Your task to perform on an android device: Go to internet settings Image 0: 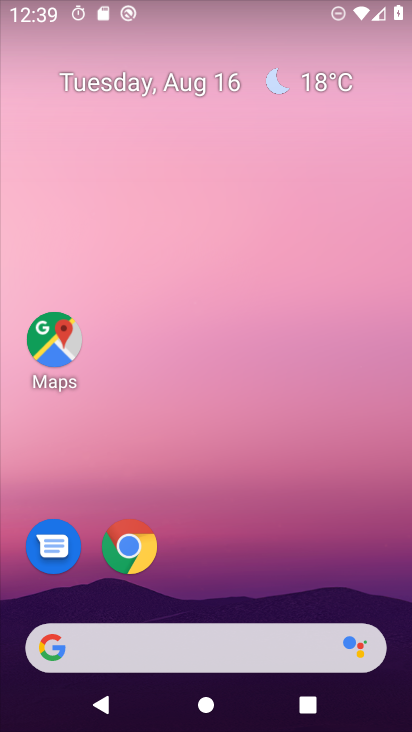
Step 0: drag from (224, 536) to (212, 126)
Your task to perform on an android device: Go to internet settings Image 1: 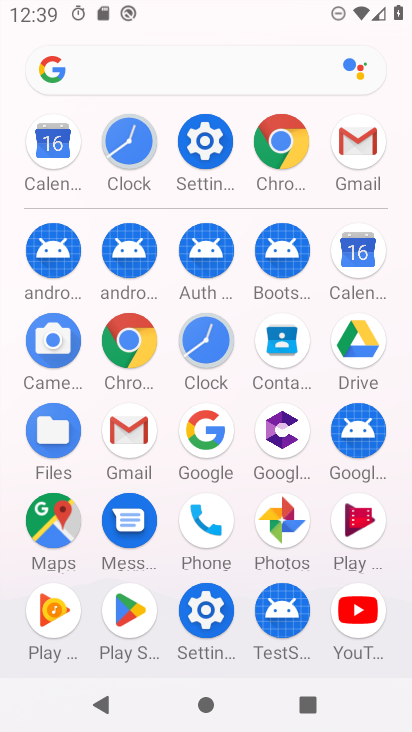
Step 1: click (202, 135)
Your task to perform on an android device: Go to internet settings Image 2: 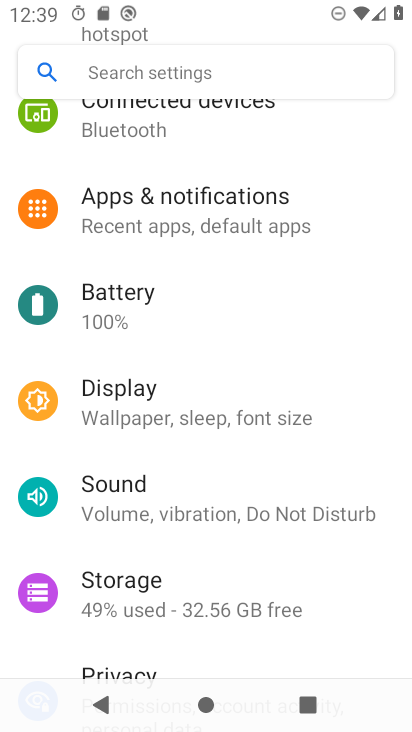
Step 2: drag from (177, 252) to (188, 580)
Your task to perform on an android device: Go to internet settings Image 3: 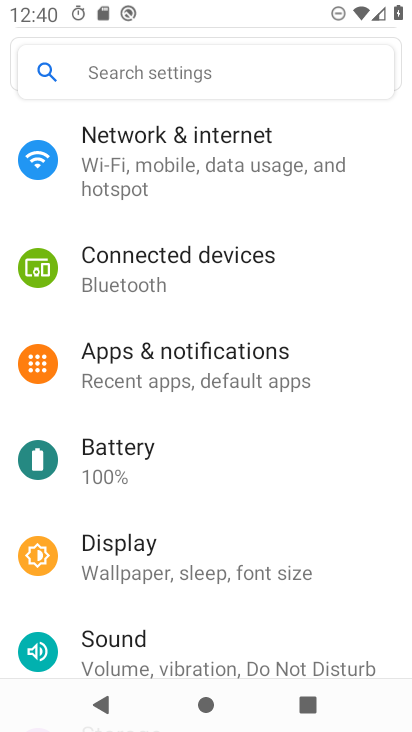
Step 3: drag from (184, 173) to (199, 622)
Your task to perform on an android device: Go to internet settings Image 4: 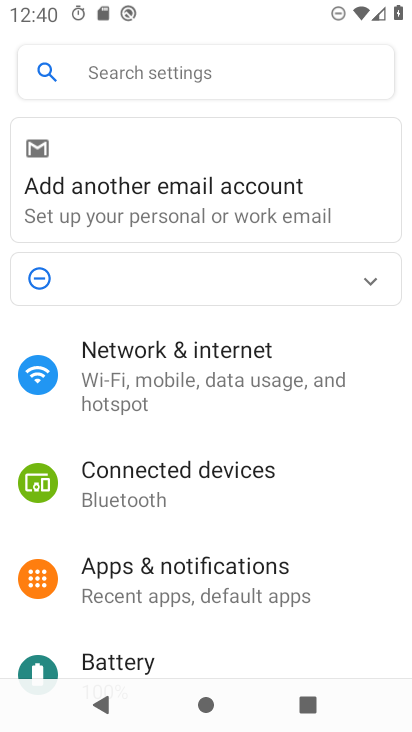
Step 4: click (141, 361)
Your task to perform on an android device: Go to internet settings Image 5: 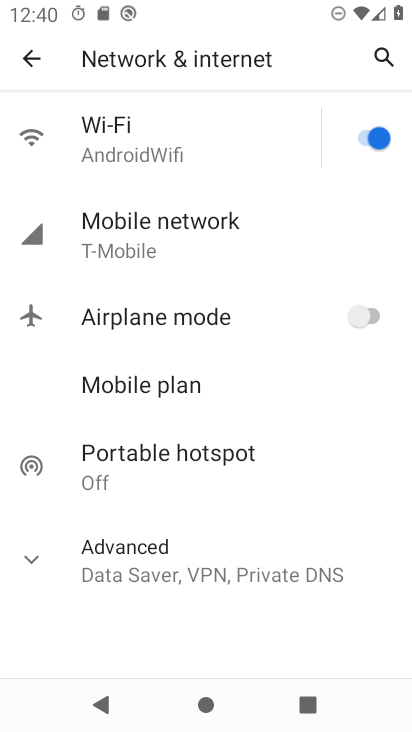
Step 5: task complete